Your task to perform on an android device: Open Google Chrome and open the bookmarks view Image 0: 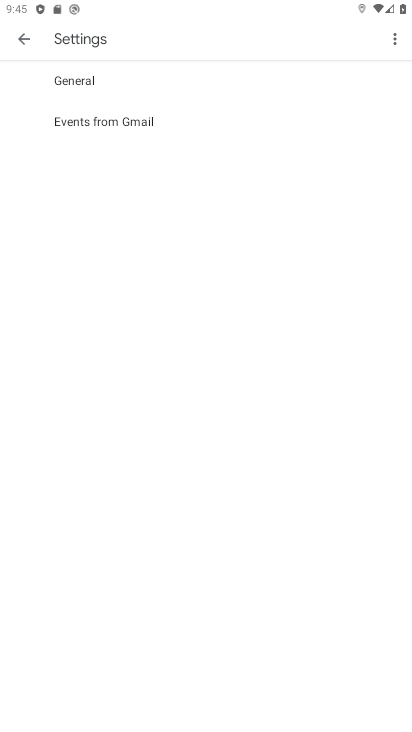
Step 0: press home button
Your task to perform on an android device: Open Google Chrome and open the bookmarks view Image 1: 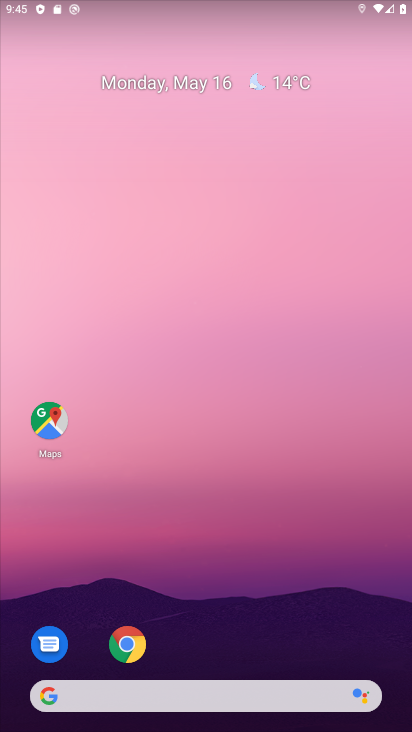
Step 1: click (136, 649)
Your task to perform on an android device: Open Google Chrome and open the bookmarks view Image 2: 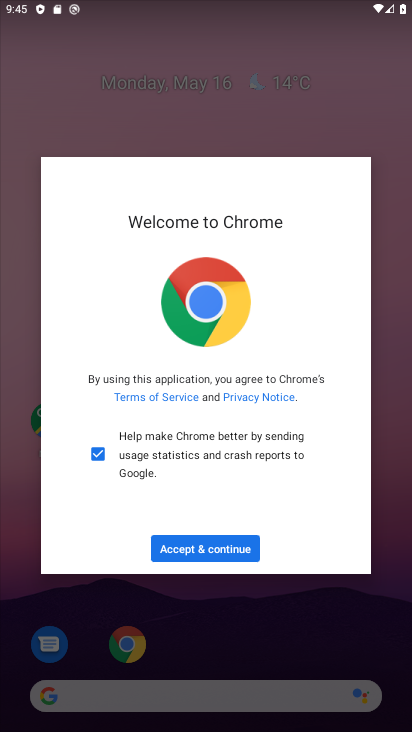
Step 2: click (235, 561)
Your task to perform on an android device: Open Google Chrome and open the bookmarks view Image 3: 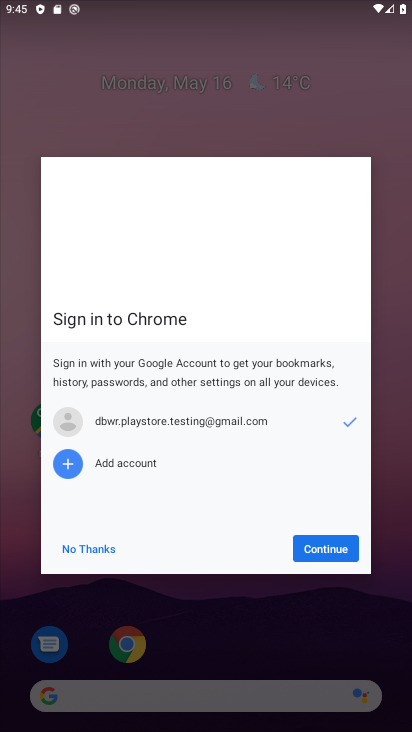
Step 3: click (323, 550)
Your task to perform on an android device: Open Google Chrome and open the bookmarks view Image 4: 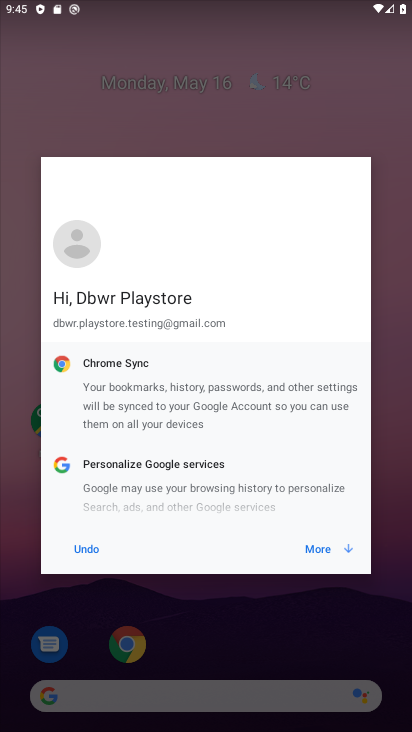
Step 4: click (323, 552)
Your task to perform on an android device: Open Google Chrome and open the bookmarks view Image 5: 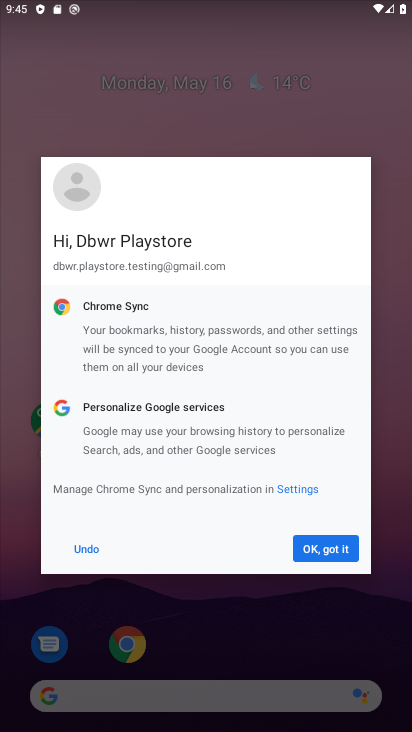
Step 5: click (323, 552)
Your task to perform on an android device: Open Google Chrome and open the bookmarks view Image 6: 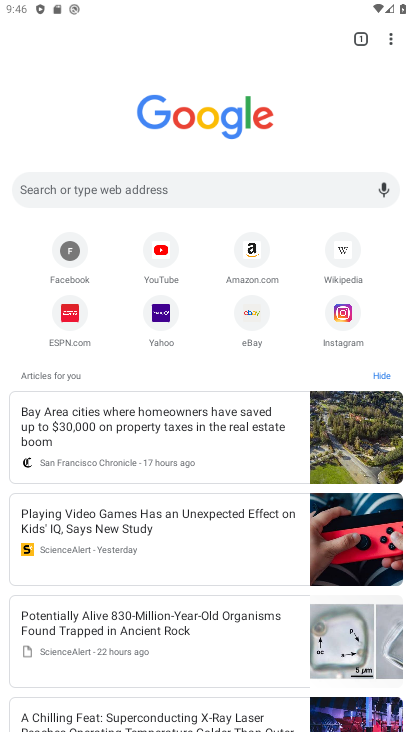
Step 6: click (393, 37)
Your task to perform on an android device: Open Google Chrome and open the bookmarks view Image 7: 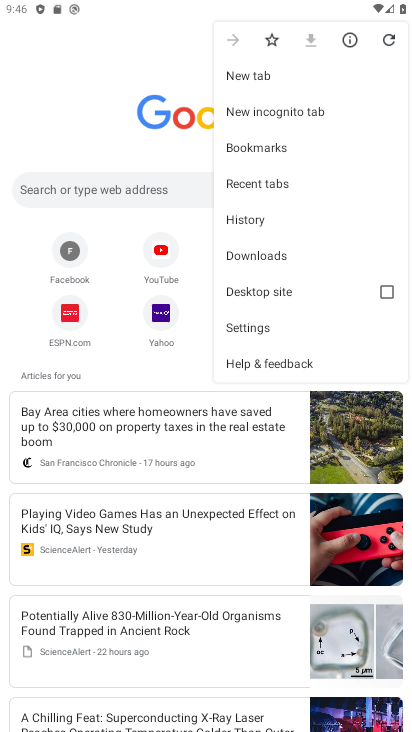
Step 7: click (271, 150)
Your task to perform on an android device: Open Google Chrome and open the bookmarks view Image 8: 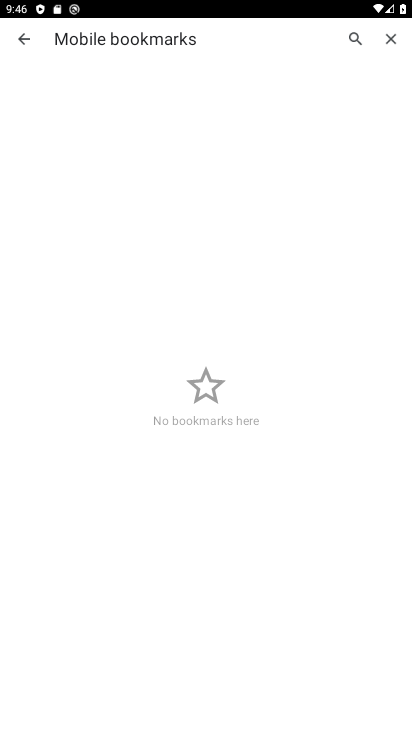
Step 8: task complete